Your task to perform on an android device: What's the weather going to be tomorrow? Image 0: 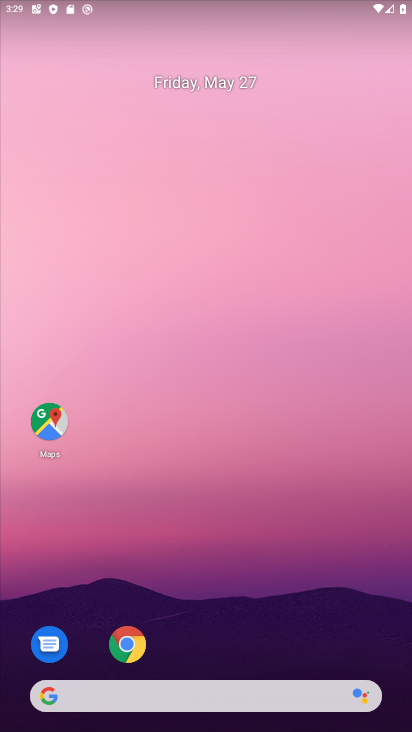
Step 0: drag from (311, 596) to (212, 64)
Your task to perform on an android device: What's the weather going to be tomorrow? Image 1: 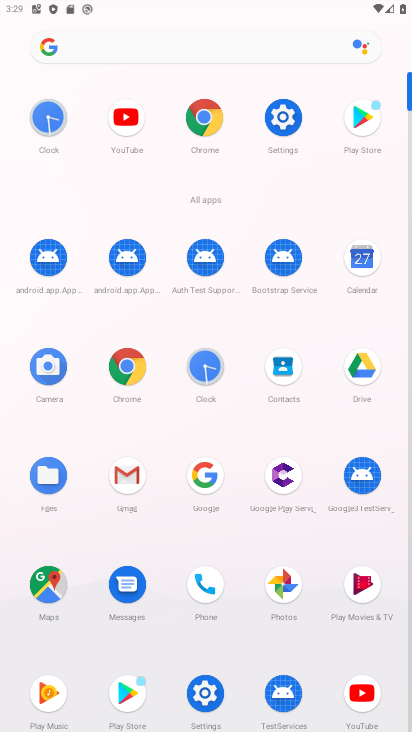
Step 1: click (213, 478)
Your task to perform on an android device: What's the weather going to be tomorrow? Image 2: 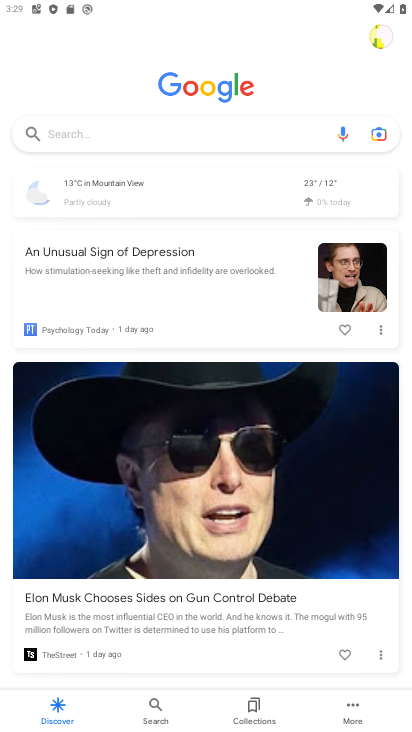
Step 2: click (313, 184)
Your task to perform on an android device: What's the weather going to be tomorrow? Image 3: 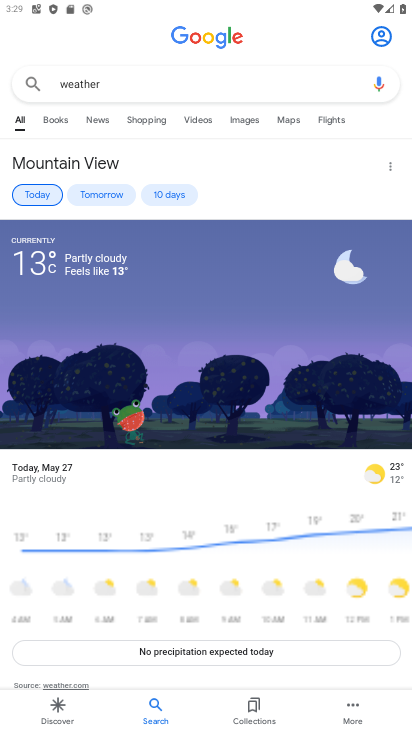
Step 3: click (112, 191)
Your task to perform on an android device: What's the weather going to be tomorrow? Image 4: 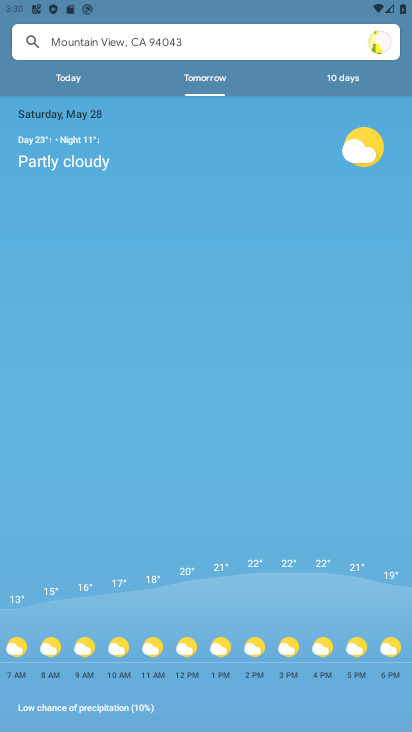
Step 4: task complete